Your task to perform on an android device: turn on airplane mode Image 0: 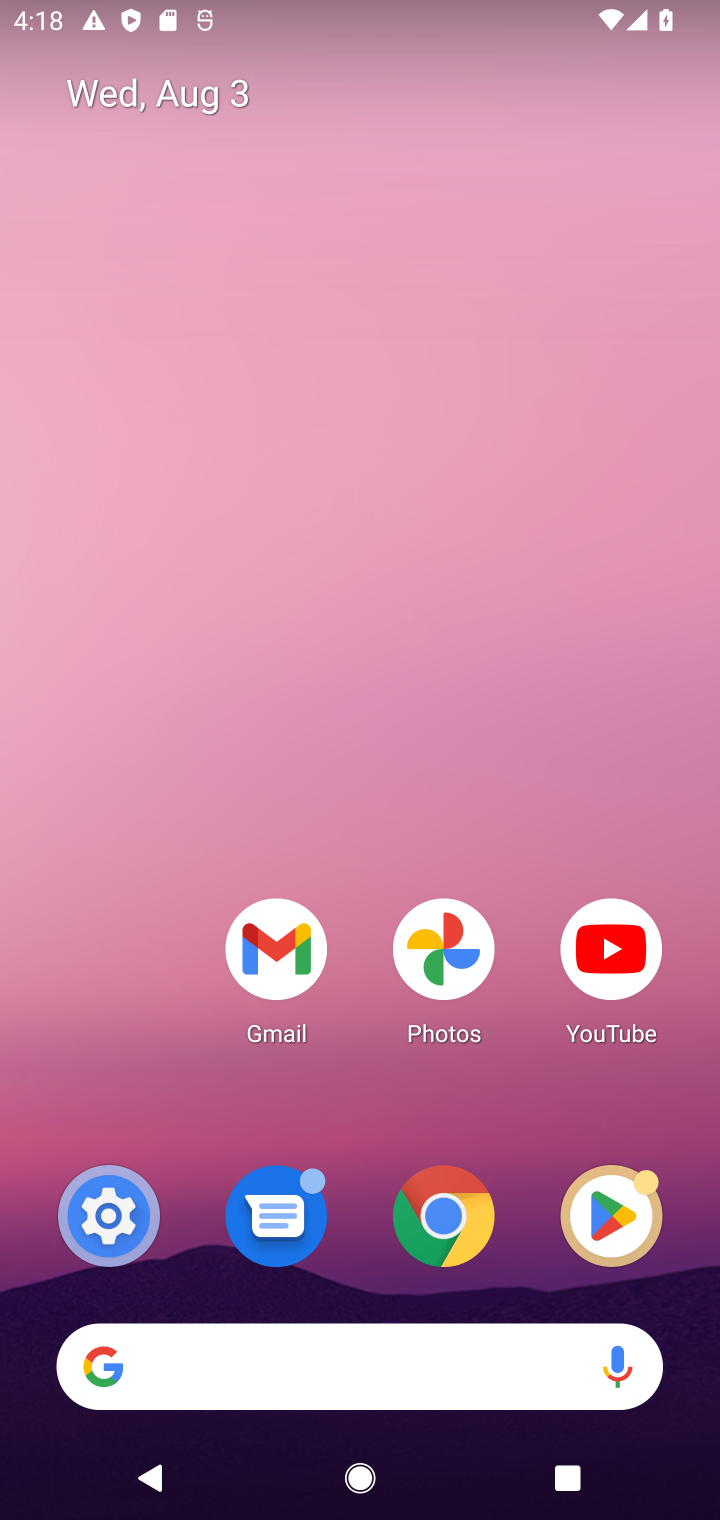
Step 0: click (103, 1230)
Your task to perform on an android device: turn on airplane mode Image 1: 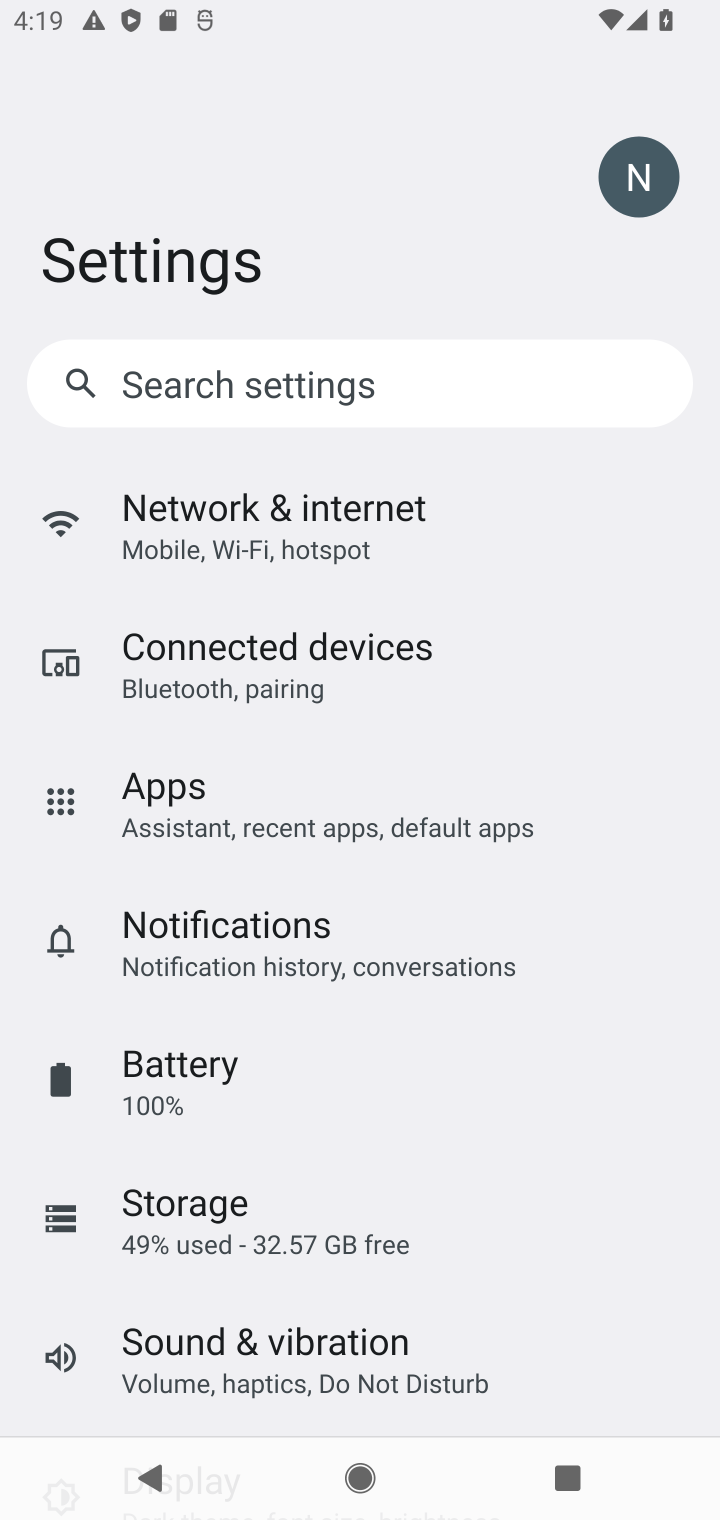
Step 1: click (280, 547)
Your task to perform on an android device: turn on airplane mode Image 2: 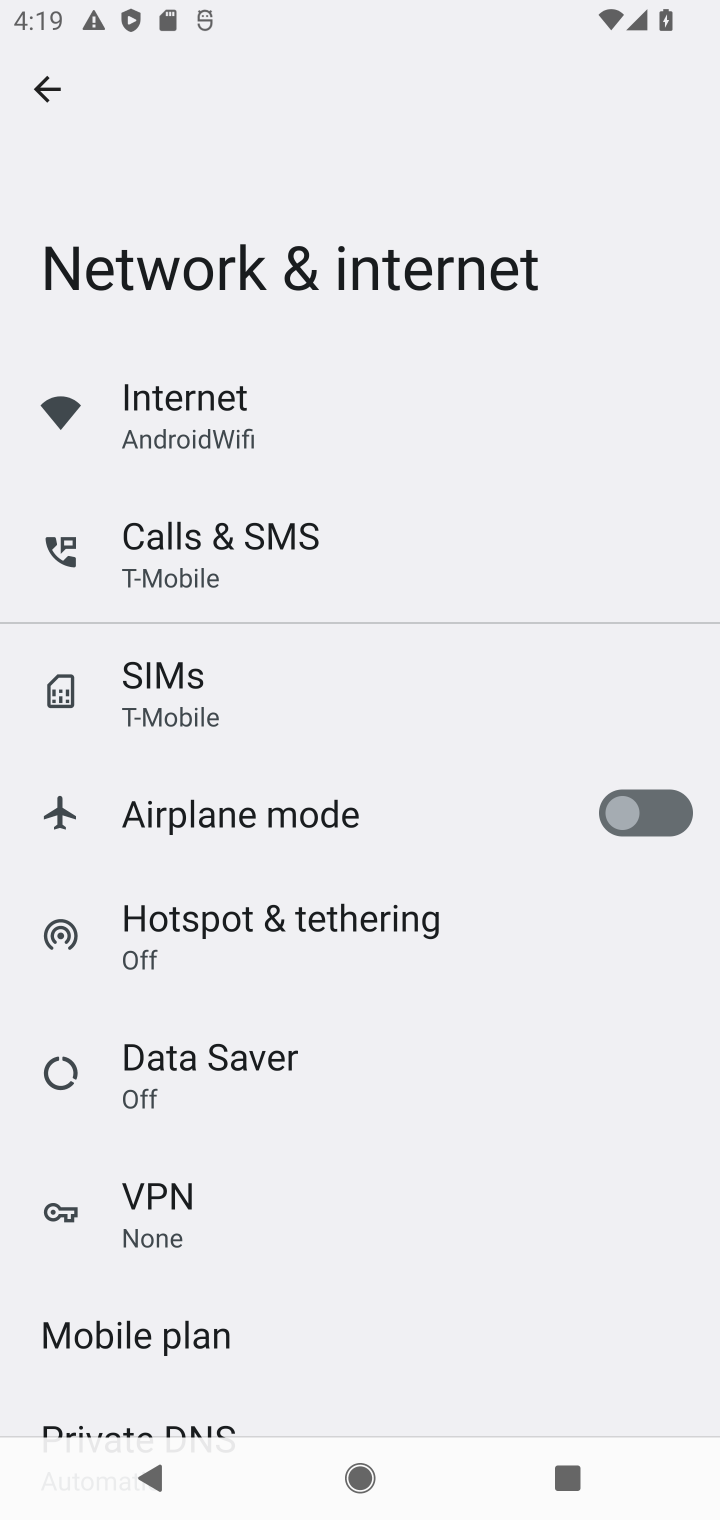
Step 2: click (655, 812)
Your task to perform on an android device: turn on airplane mode Image 3: 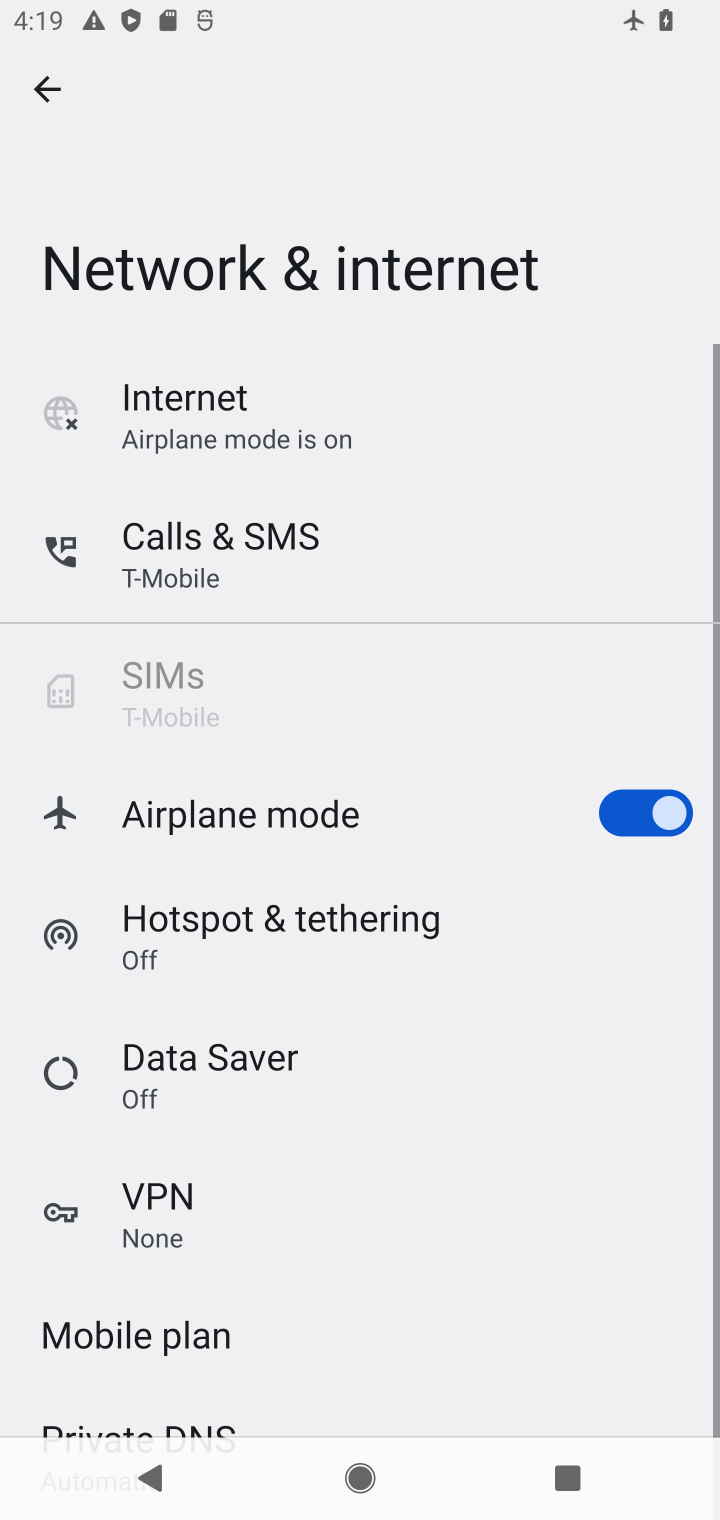
Step 3: task complete